Your task to perform on an android device: check battery use Image 0: 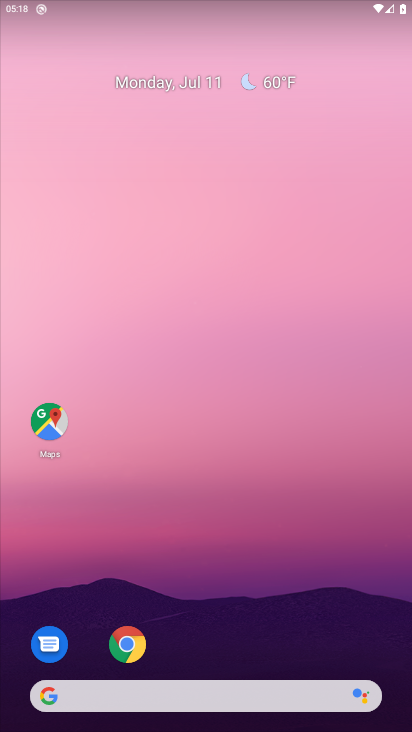
Step 0: drag from (229, 676) to (271, 210)
Your task to perform on an android device: check battery use Image 1: 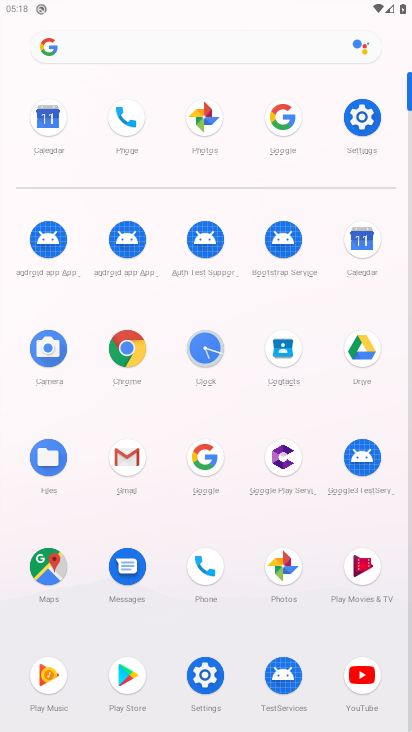
Step 1: click (358, 123)
Your task to perform on an android device: check battery use Image 2: 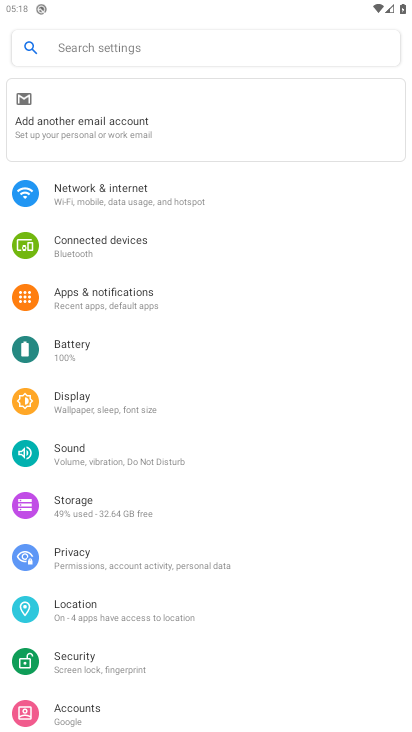
Step 2: click (75, 352)
Your task to perform on an android device: check battery use Image 3: 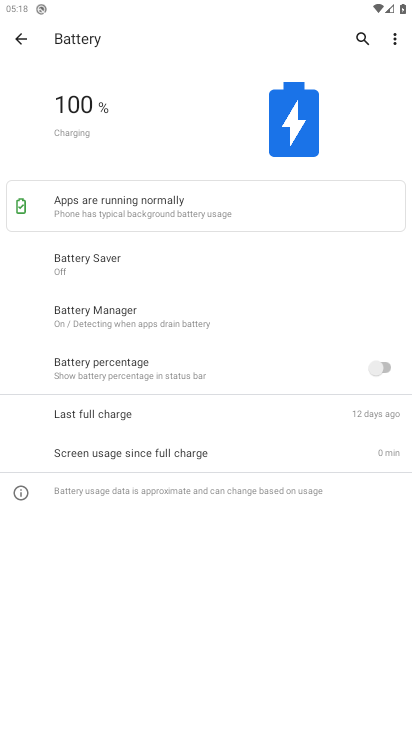
Step 3: click (394, 34)
Your task to perform on an android device: check battery use Image 4: 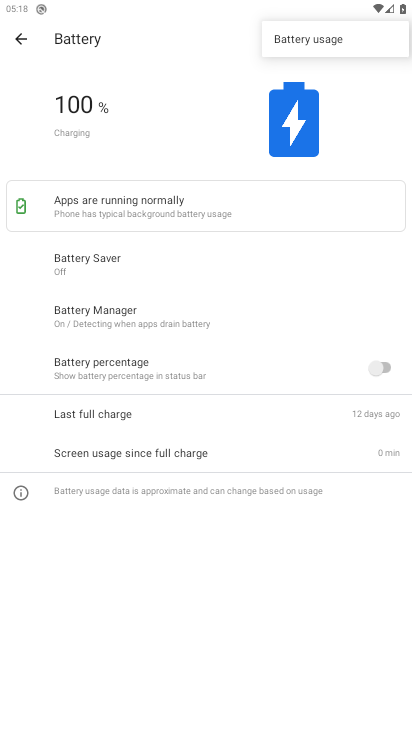
Step 4: click (322, 34)
Your task to perform on an android device: check battery use Image 5: 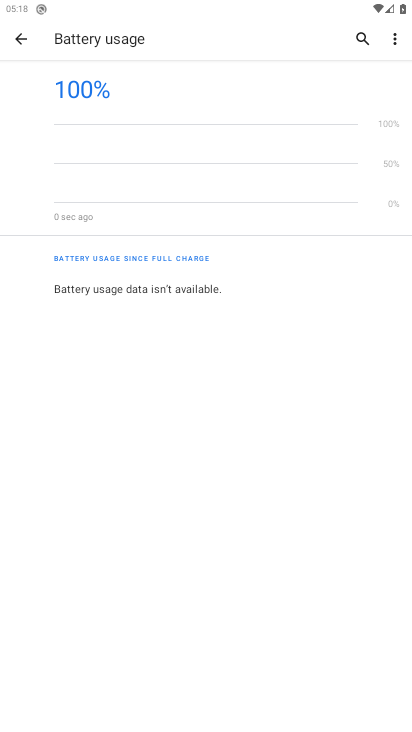
Step 5: task complete